Your task to perform on an android device: Go to Reddit.com Image 0: 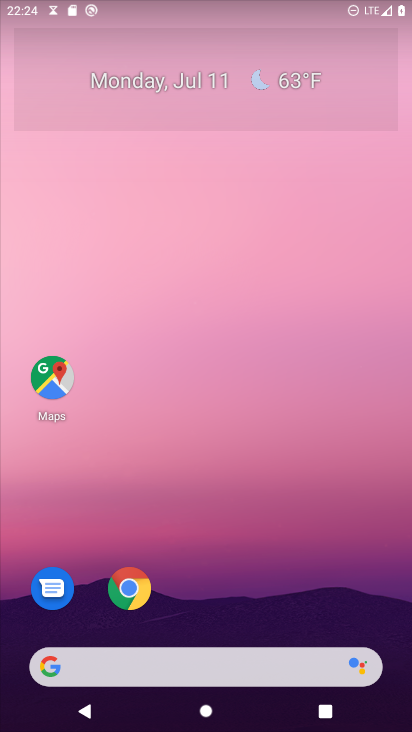
Step 0: press home button
Your task to perform on an android device: Go to Reddit.com Image 1: 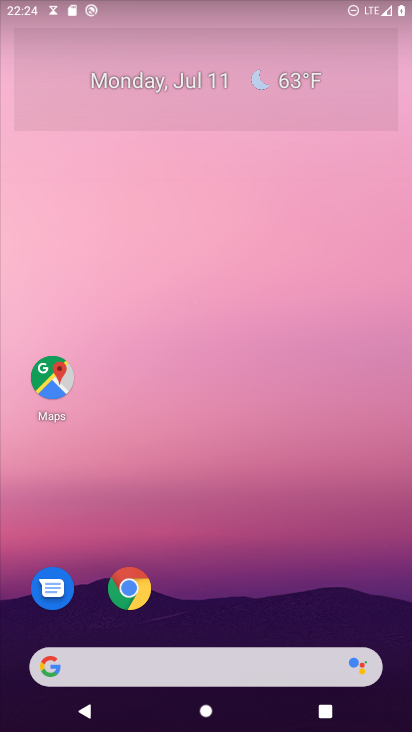
Step 1: click (229, 669)
Your task to perform on an android device: Go to Reddit.com Image 2: 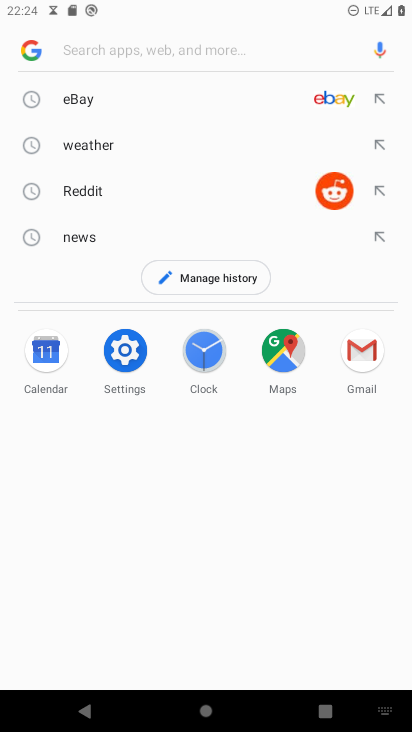
Step 2: type "Reddit.com"
Your task to perform on an android device: Go to Reddit.com Image 3: 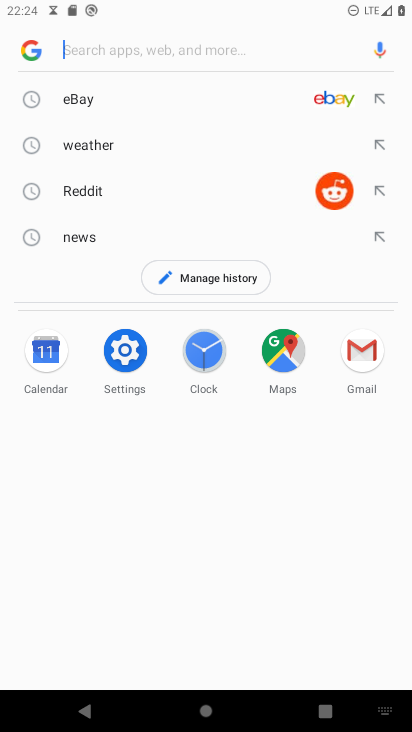
Step 3: click (125, 45)
Your task to perform on an android device: Go to Reddit.com Image 4: 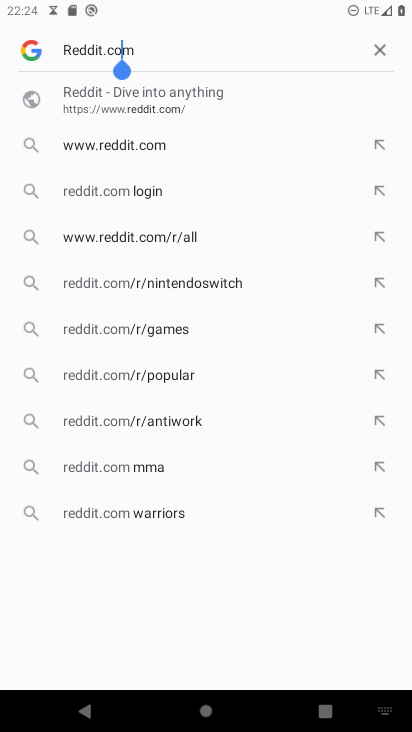
Step 4: click (135, 140)
Your task to perform on an android device: Go to Reddit.com Image 5: 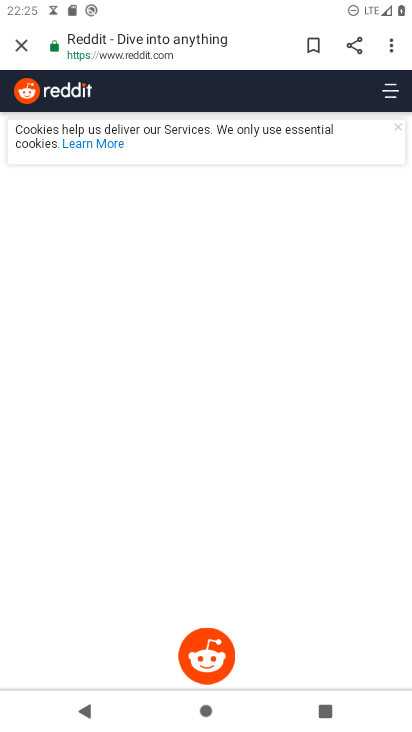
Step 5: task complete